Your task to perform on an android device: toggle location history Image 0: 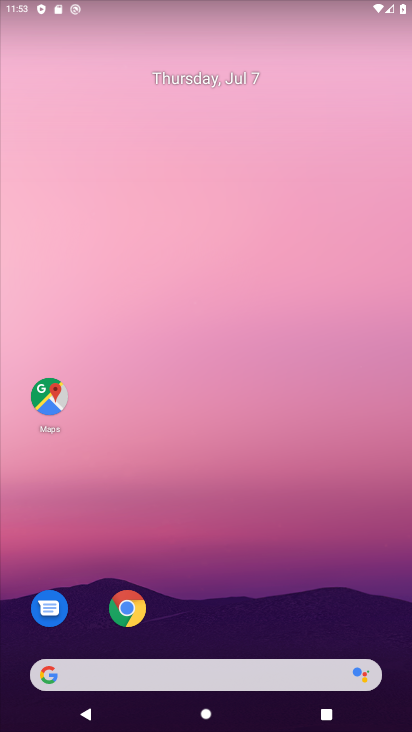
Step 0: click (52, 404)
Your task to perform on an android device: toggle location history Image 1: 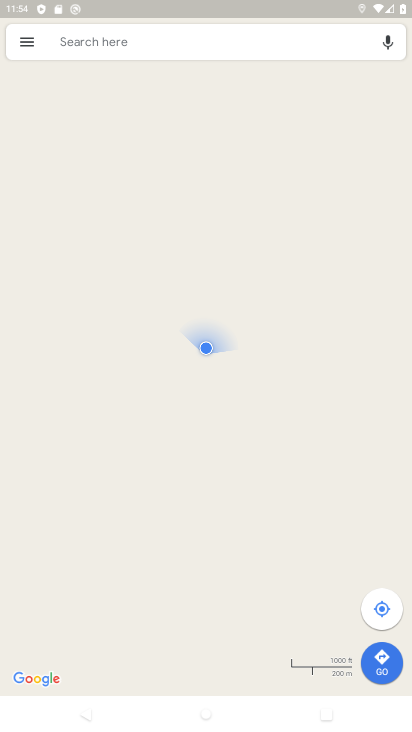
Step 1: click (17, 43)
Your task to perform on an android device: toggle location history Image 2: 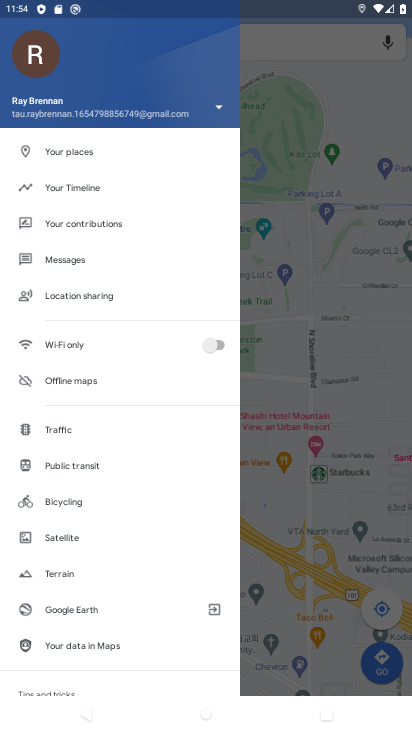
Step 2: click (77, 187)
Your task to perform on an android device: toggle location history Image 3: 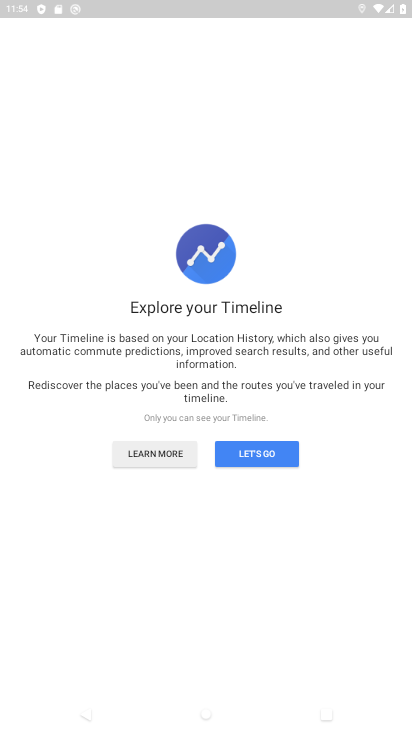
Step 3: click (244, 452)
Your task to perform on an android device: toggle location history Image 4: 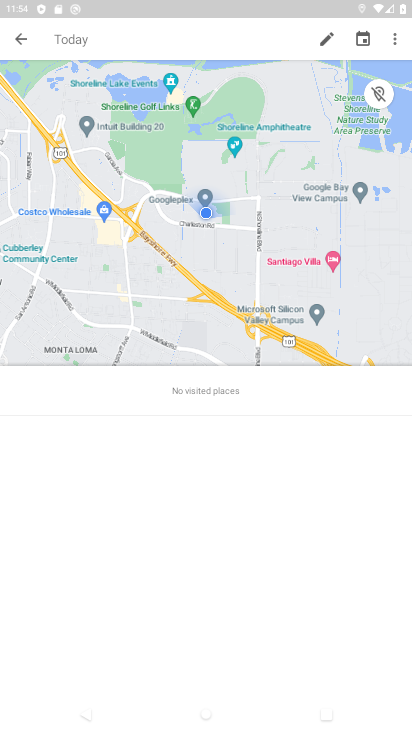
Step 4: click (400, 40)
Your task to perform on an android device: toggle location history Image 5: 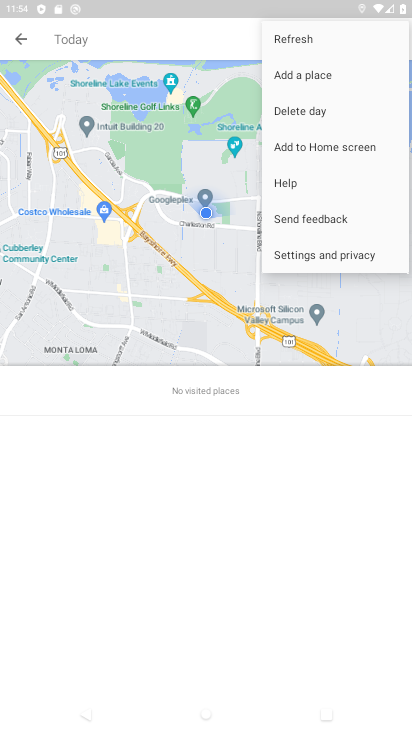
Step 5: click (297, 261)
Your task to perform on an android device: toggle location history Image 6: 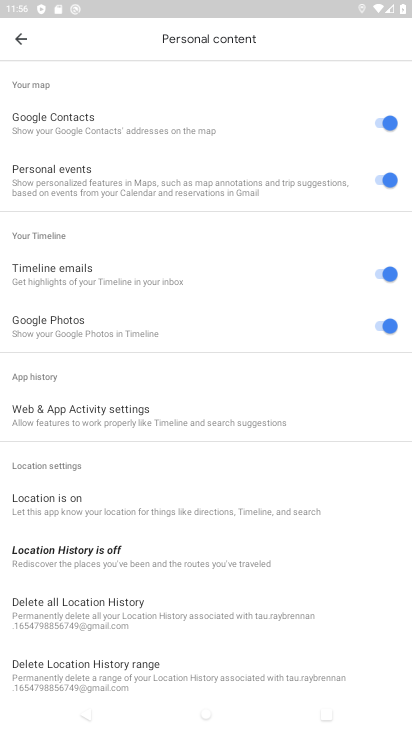
Step 6: click (55, 546)
Your task to perform on an android device: toggle location history Image 7: 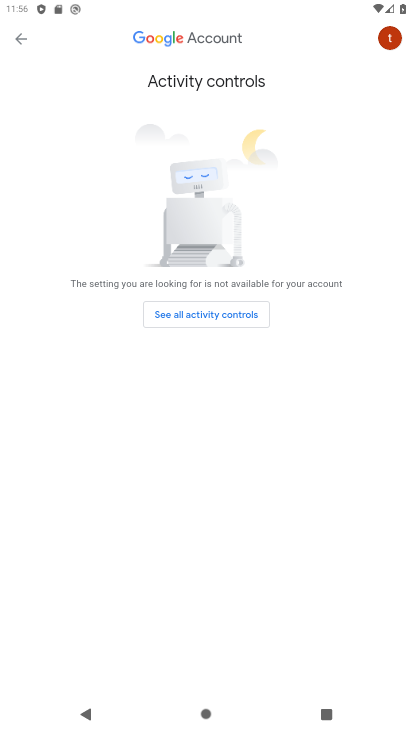
Step 7: click (211, 321)
Your task to perform on an android device: toggle location history Image 8: 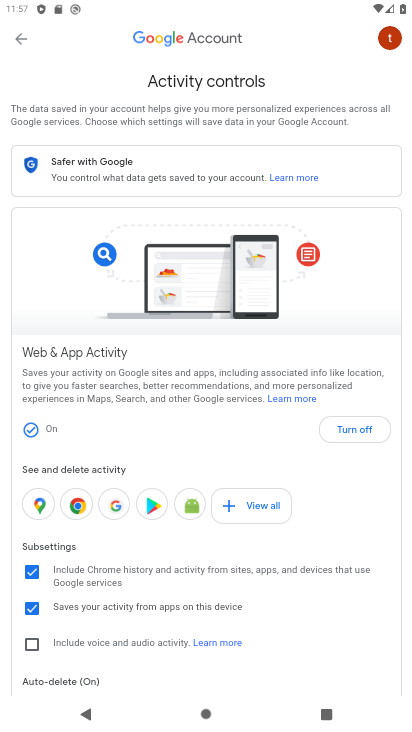
Step 8: click (389, 425)
Your task to perform on an android device: toggle location history Image 9: 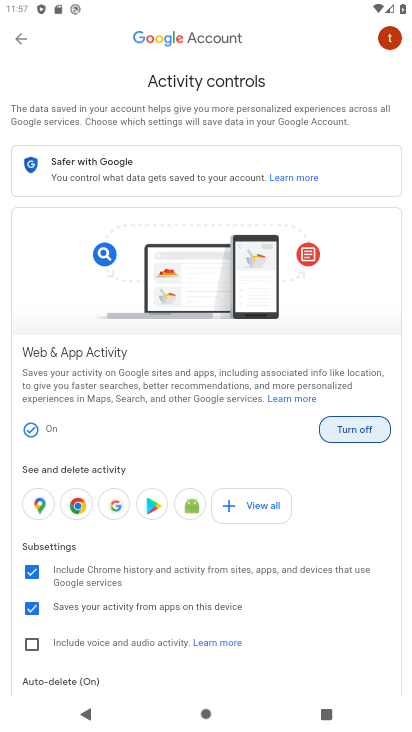
Step 9: click (377, 422)
Your task to perform on an android device: toggle location history Image 10: 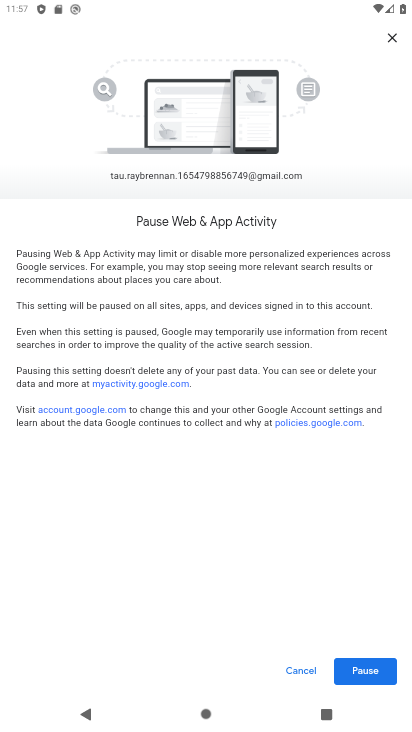
Step 10: click (375, 665)
Your task to perform on an android device: toggle location history Image 11: 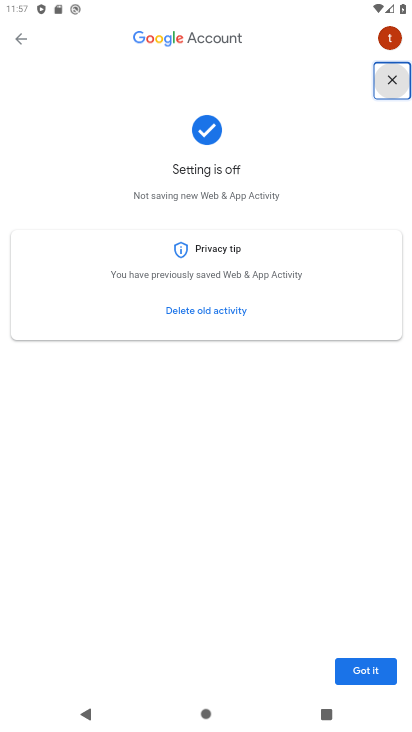
Step 11: click (361, 667)
Your task to perform on an android device: toggle location history Image 12: 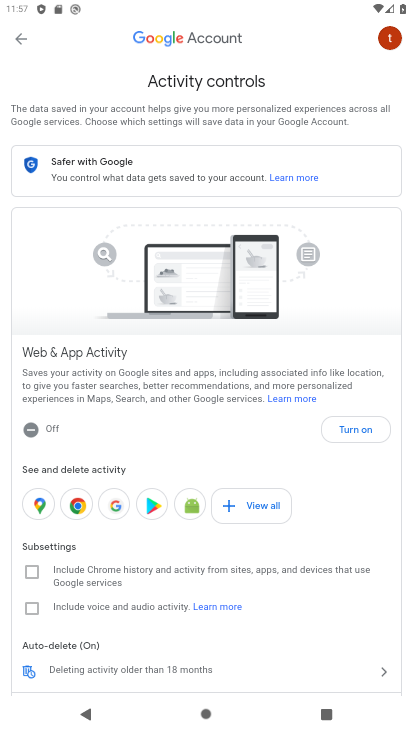
Step 12: task complete